Your task to perform on an android device: turn off wifi Image 0: 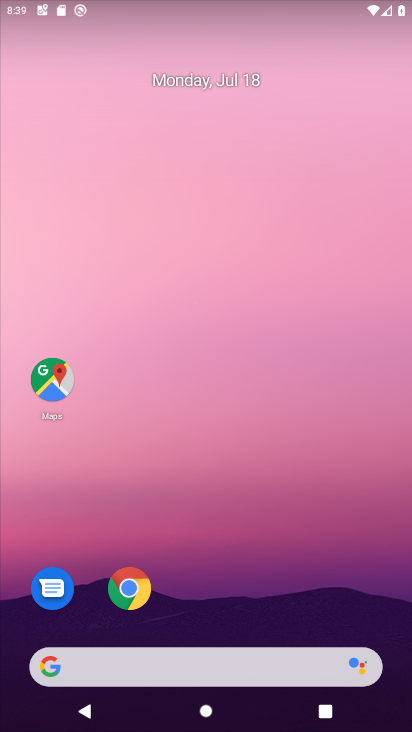
Step 0: drag from (169, 610) to (294, 50)
Your task to perform on an android device: turn off wifi Image 1: 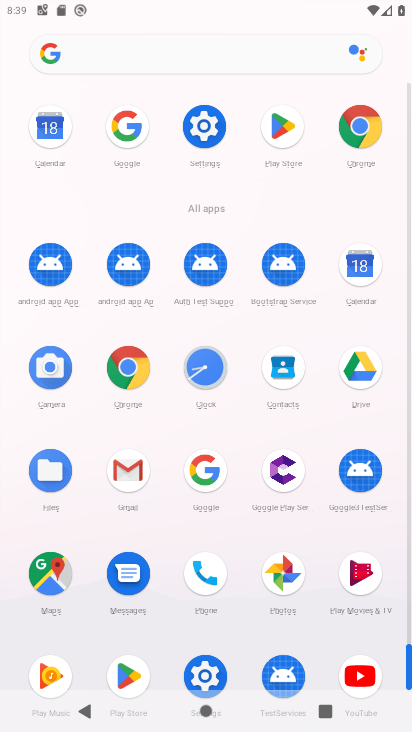
Step 1: click (186, 674)
Your task to perform on an android device: turn off wifi Image 2: 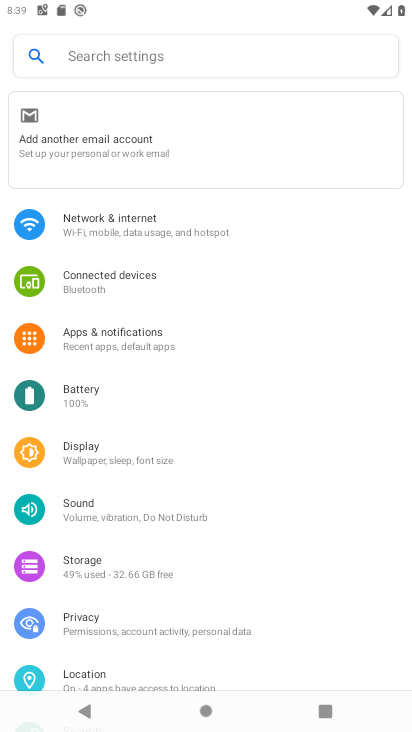
Step 2: click (158, 220)
Your task to perform on an android device: turn off wifi Image 3: 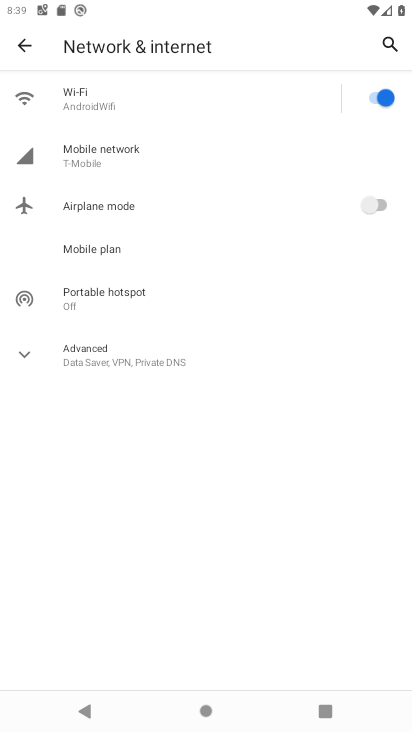
Step 3: click (368, 103)
Your task to perform on an android device: turn off wifi Image 4: 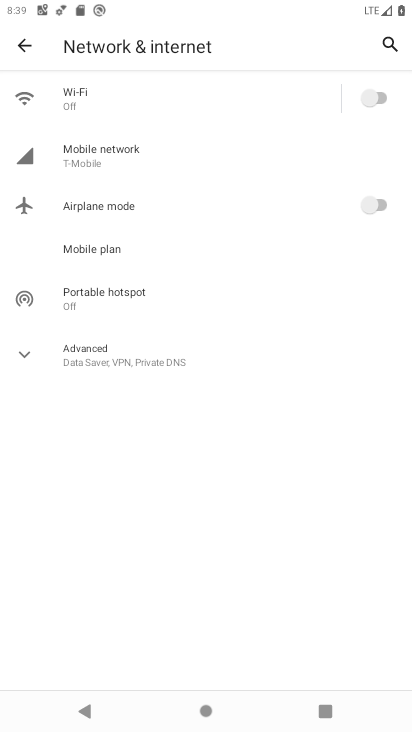
Step 4: task complete